Your task to perform on an android device: Open settings on Google Maps Image 0: 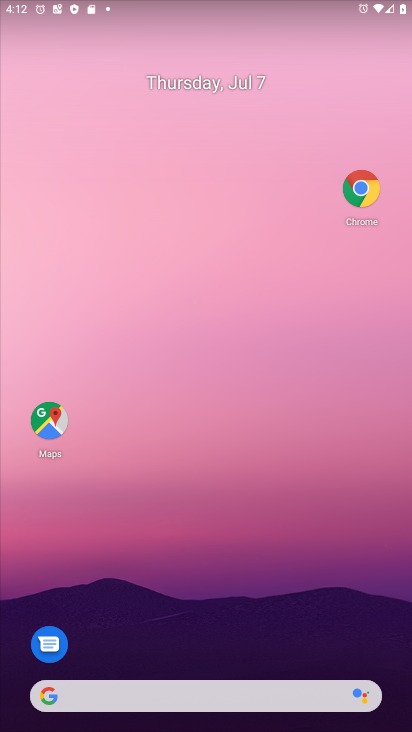
Step 0: drag from (292, 655) to (284, 538)
Your task to perform on an android device: Open settings on Google Maps Image 1: 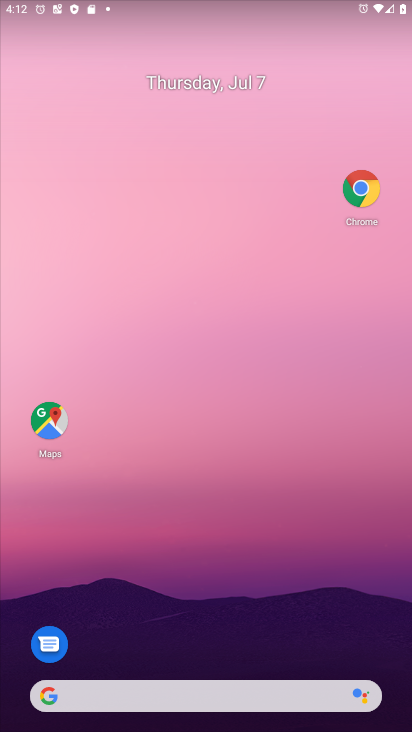
Step 1: click (49, 416)
Your task to perform on an android device: Open settings on Google Maps Image 2: 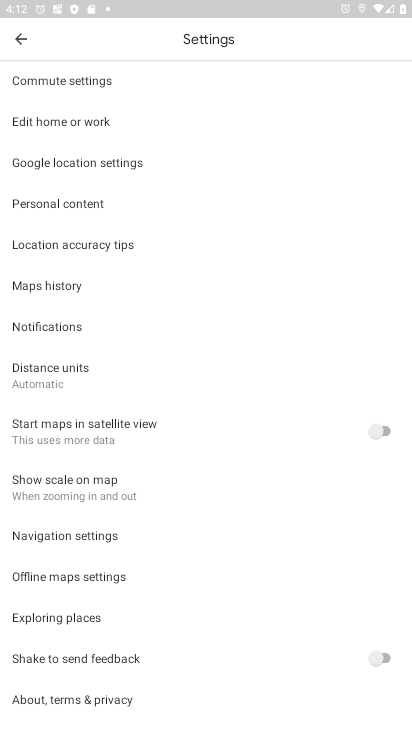
Step 2: task complete